Your task to perform on an android device: turn on data saver in the chrome app Image 0: 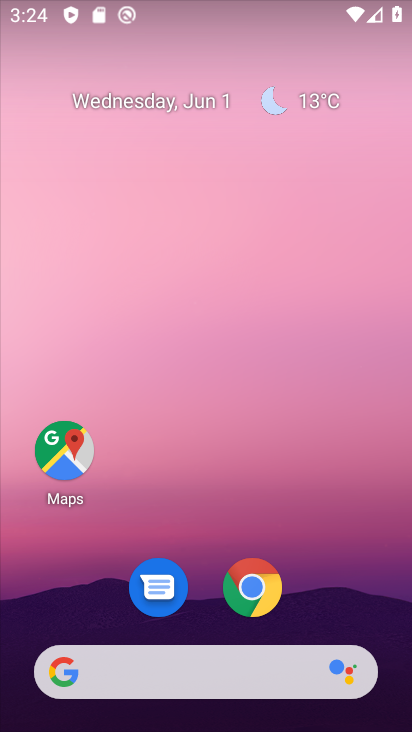
Step 0: drag from (342, 581) to (212, 0)
Your task to perform on an android device: turn on data saver in the chrome app Image 1: 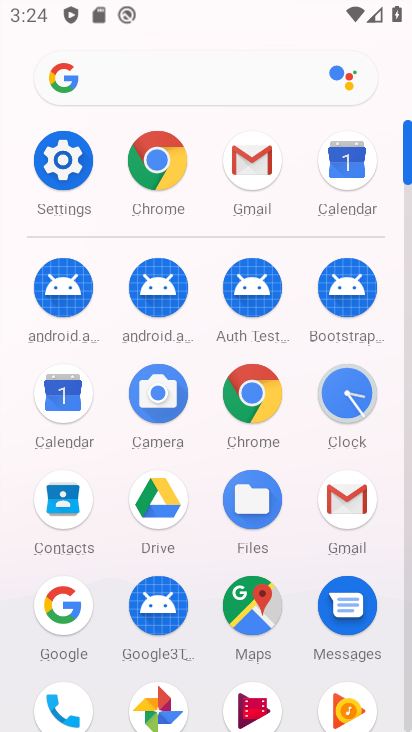
Step 1: drag from (24, 618) to (18, 217)
Your task to perform on an android device: turn on data saver in the chrome app Image 2: 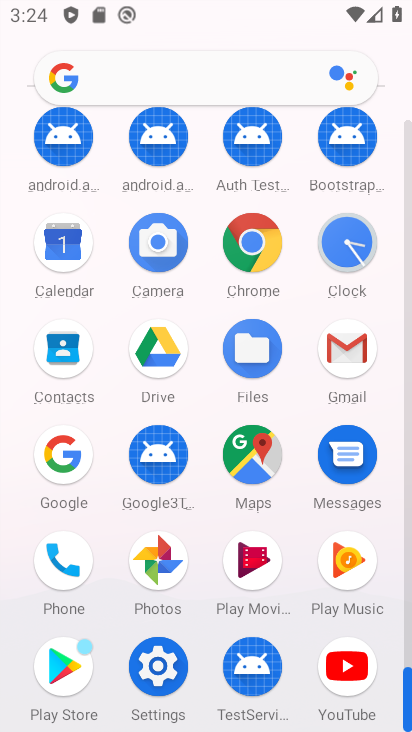
Step 2: drag from (18, 545) to (18, 180)
Your task to perform on an android device: turn on data saver in the chrome app Image 3: 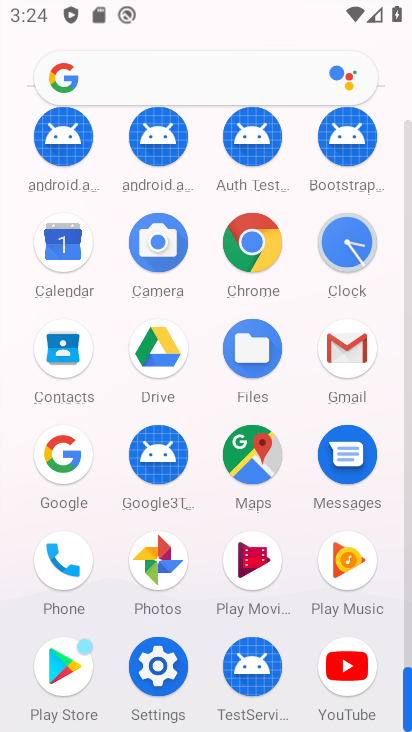
Step 3: click (249, 237)
Your task to perform on an android device: turn on data saver in the chrome app Image 4: 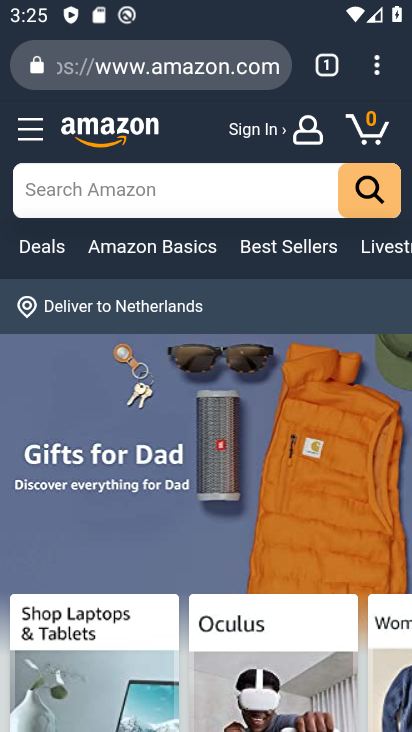
Step 4: drag from (376, 55) to (194, 630)
Your task to perform on an android device: turn on data saver in the chrome app Image 5: 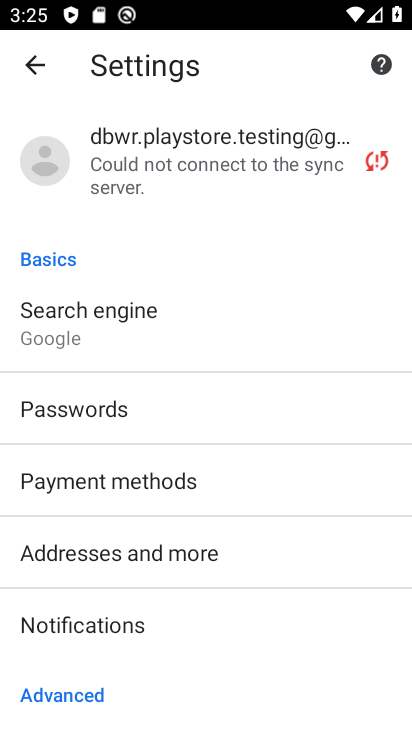
Step 5: drag from (221, 510) to (216, 71)
Your task to perform on an android device: turn on data saver in the chrome app Image 6: 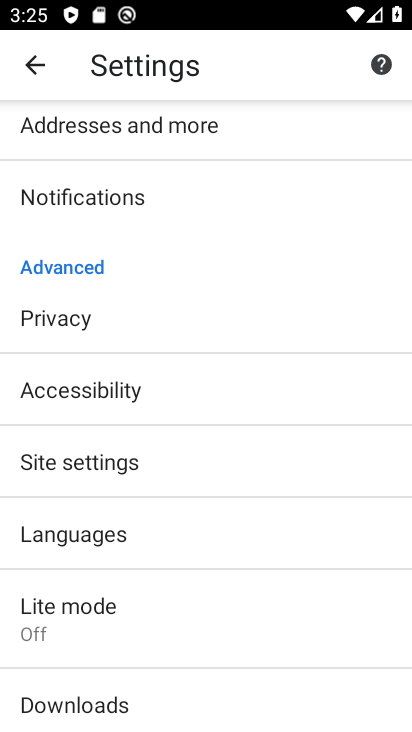
Step 6: drag from (173, 591) to (186, 249)
Your task to perform on an android device: turn on data saver in the chrome app Image 7: 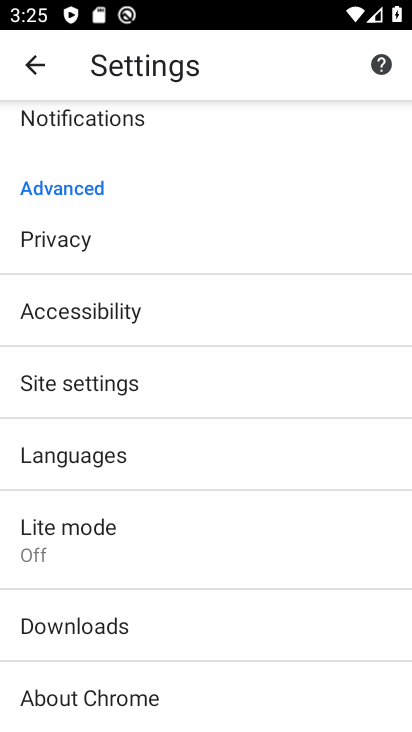
Step 7: click (144, 545)
Your task to perform on an android device: turn on data saver in the chrome app Image 8: 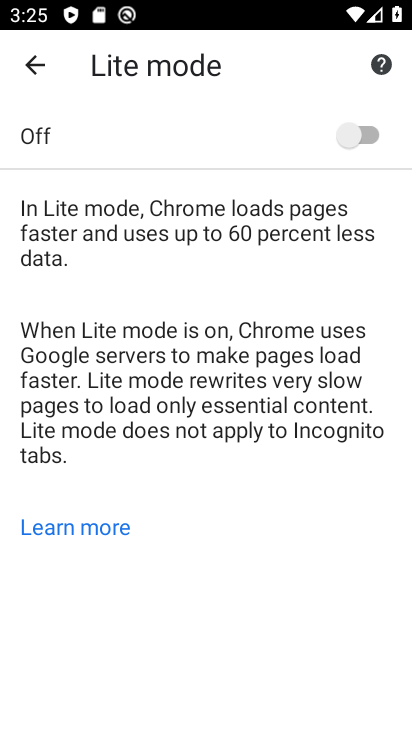
Step 8: click (347, 157)
Your task to perform on an android device: turn on data saver in the chrome app Image 9: 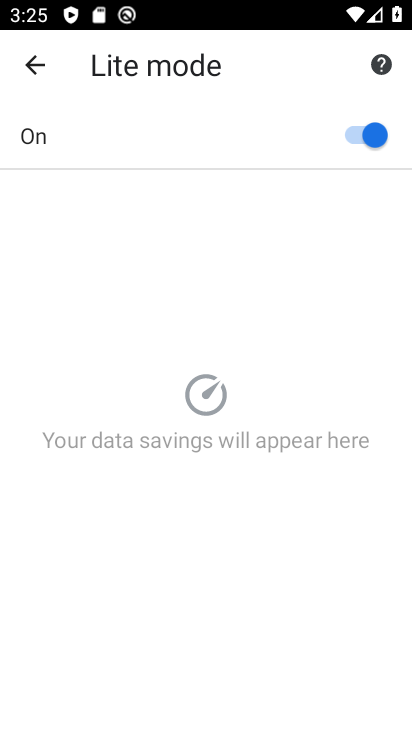
Step 9: task complete